Your task to perform on an android device: Open location settings Image 0: 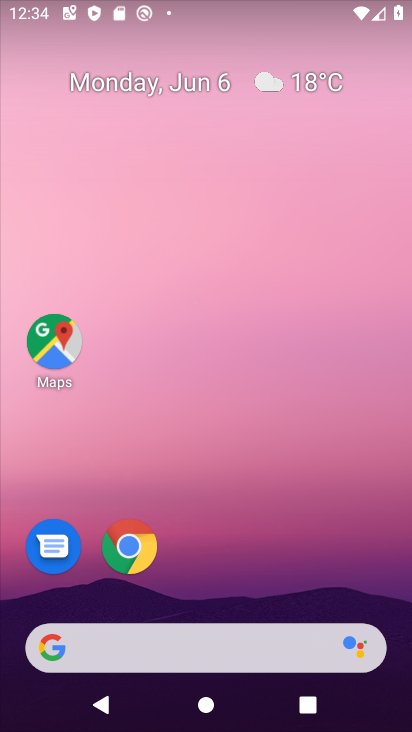
Step 0: drag from (268, 484) to (263, 130)
Your task to perform on an android device: Open location settings Image 1: 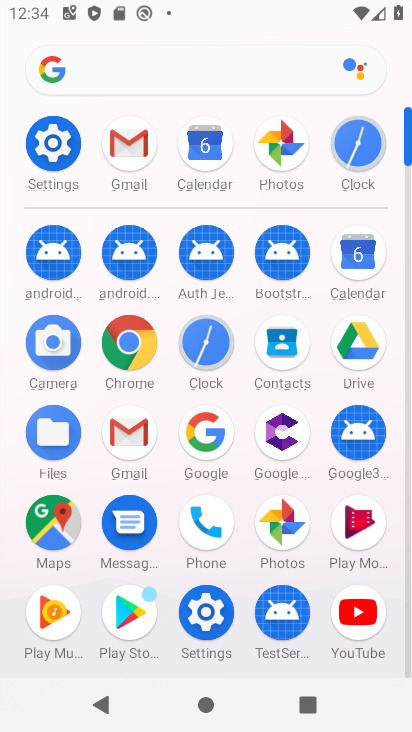
Step 1: click (46, 144)
Your task to perform on an android device: Open location settings Image 2: 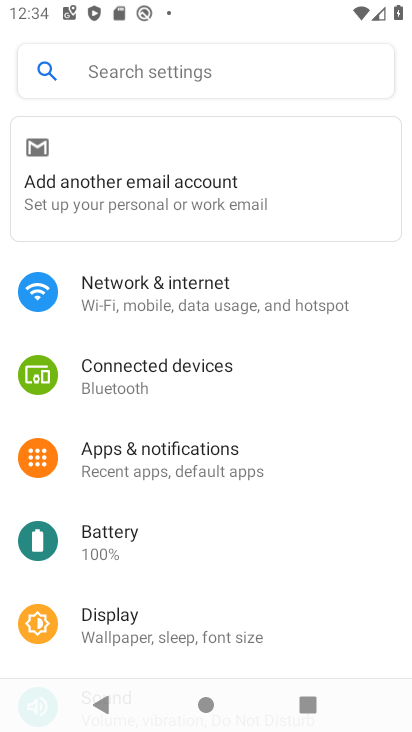
Step 2: drag from (263, 577) to (295, 194)
Your task to perform on an android device: Open location settings Image 3: 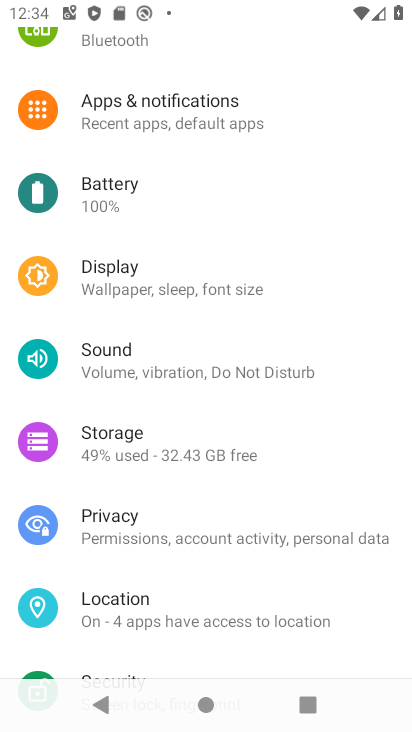
Step 3: click (230, 610)
Your task to perform on an android device: Open location settings Image 4: 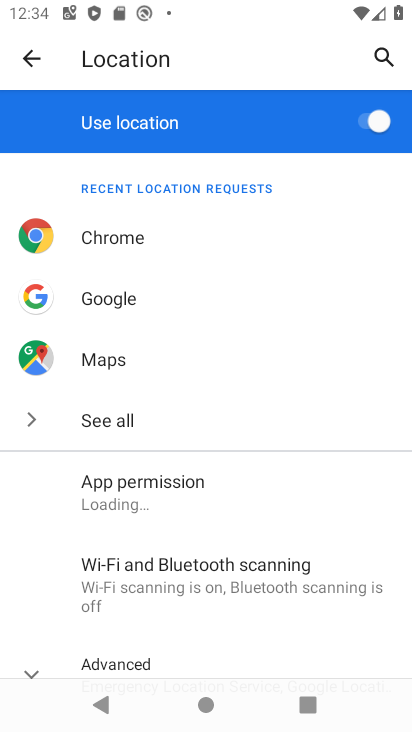
Step 4: task complete